Your task to perform on an android device: install app "Paramount+ | Peak Streaming" Image 0: 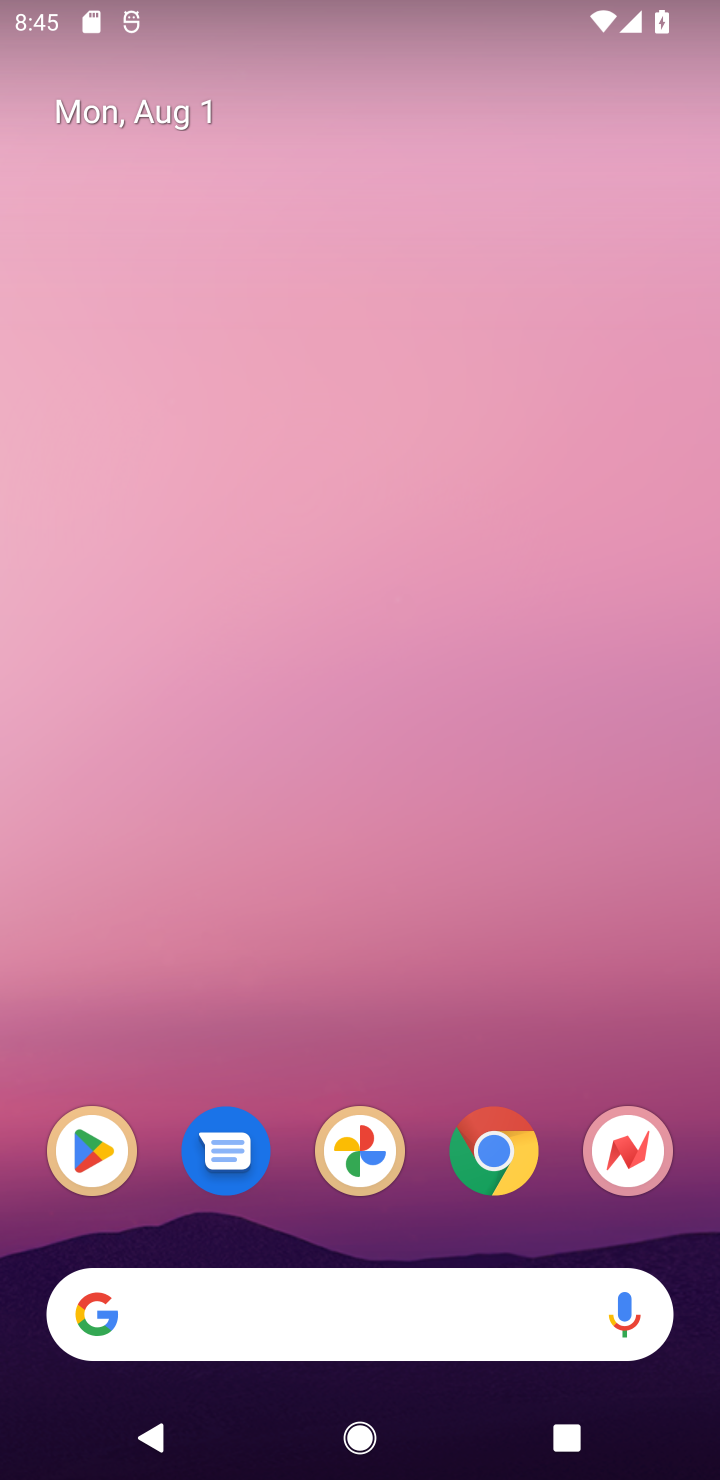
Step 0: click (117, 1149)
Your task to perform on an android device: install app "Paramount+ | Peak Streaming" Image 1: 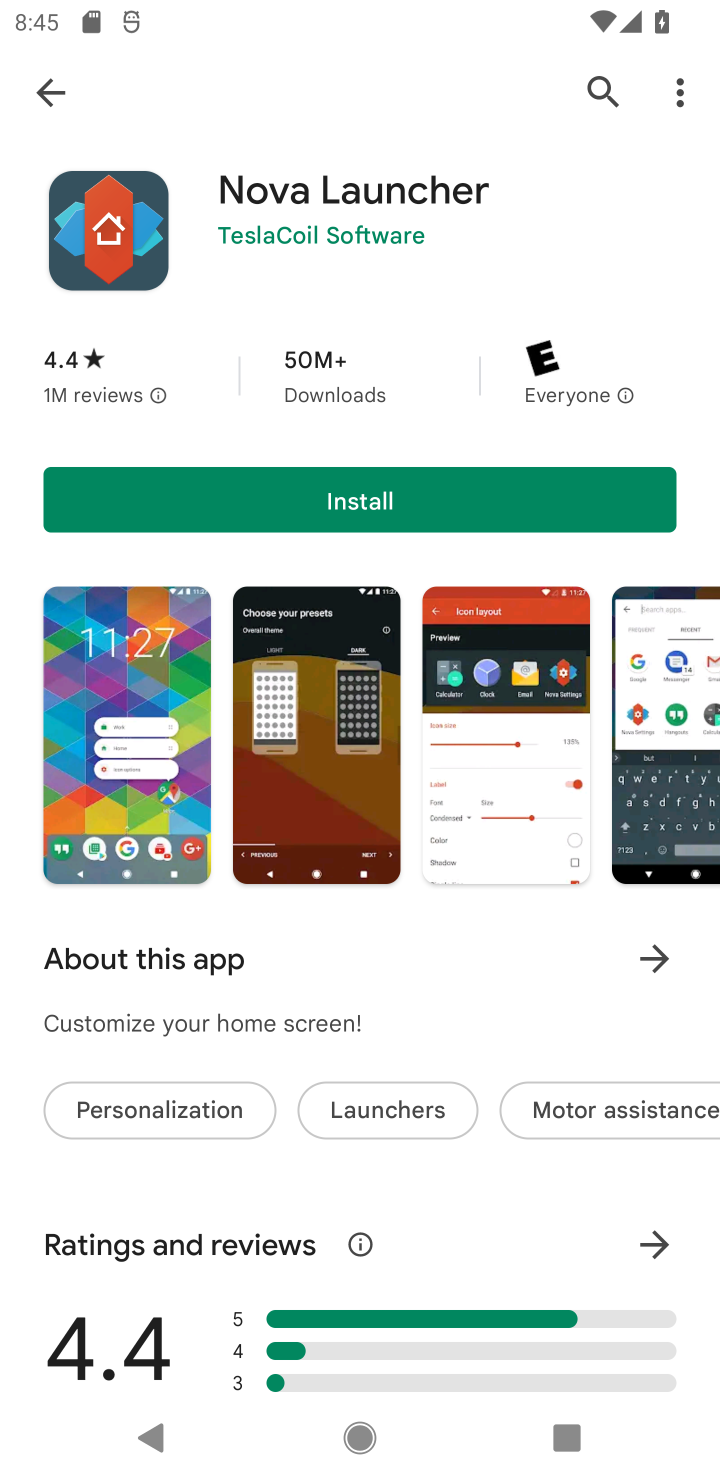
Step 1: click (607, 94)
Your task to perform on an android device: install app "Paramount+ | Peak Streaming" Image 2: 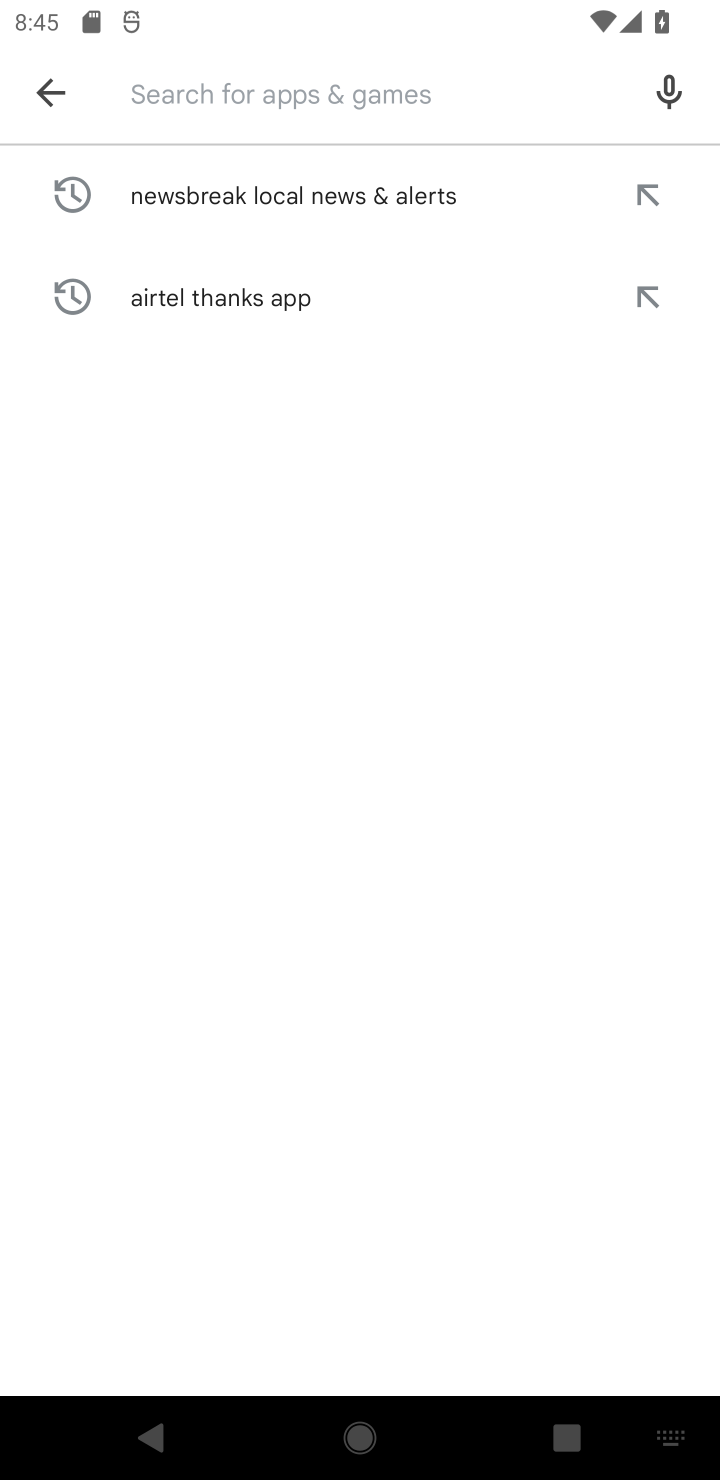
Step 2: type "Paramount+ | Peak Streaming"
Your task to perform on an android device: install app "Paramount+ | Peak Streaming" Image 3: 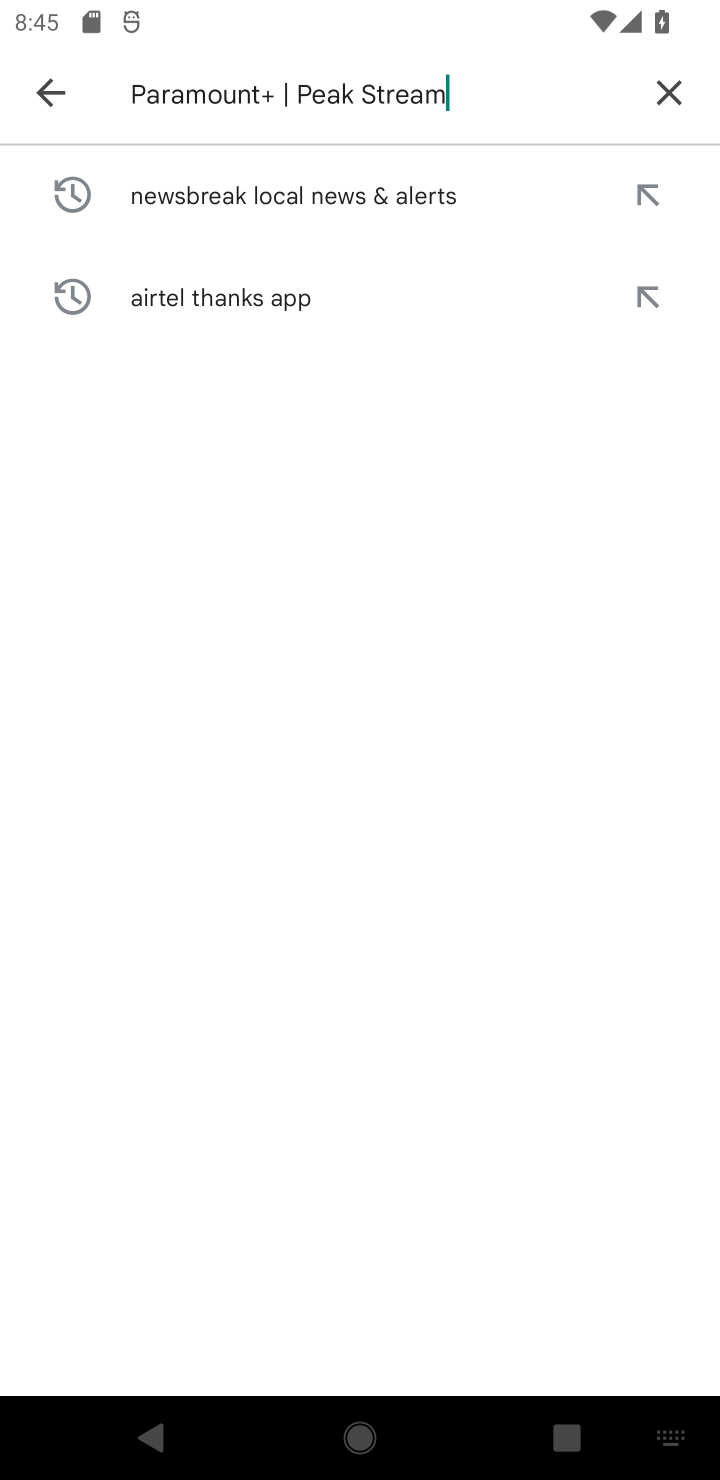
Step 3: type ""
Your task to perform on an android device: install app "Paramount+ | Peak Streaming" Image 4: 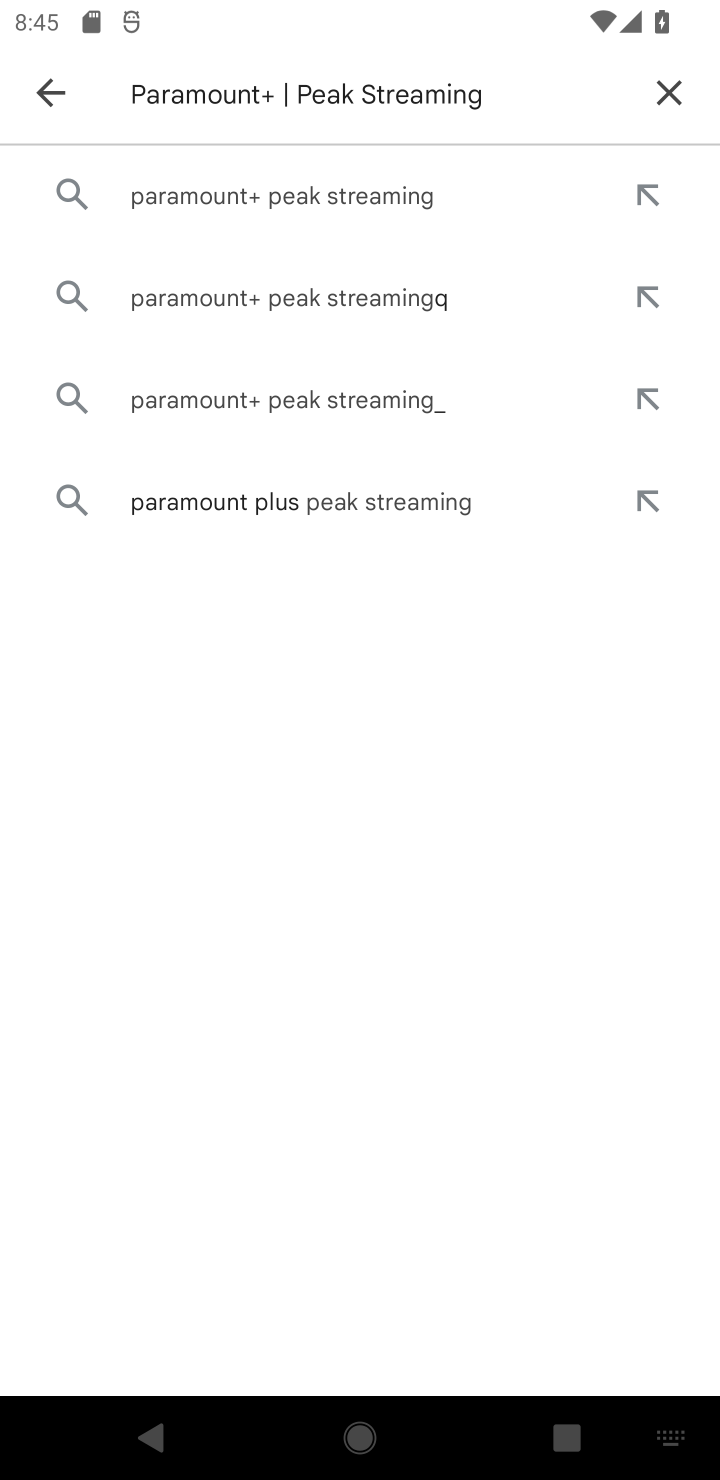
Step 4: click (251, 200)
Your task to perform on an android device: install app "Paramount+ | Peak Streaming" Image 5: 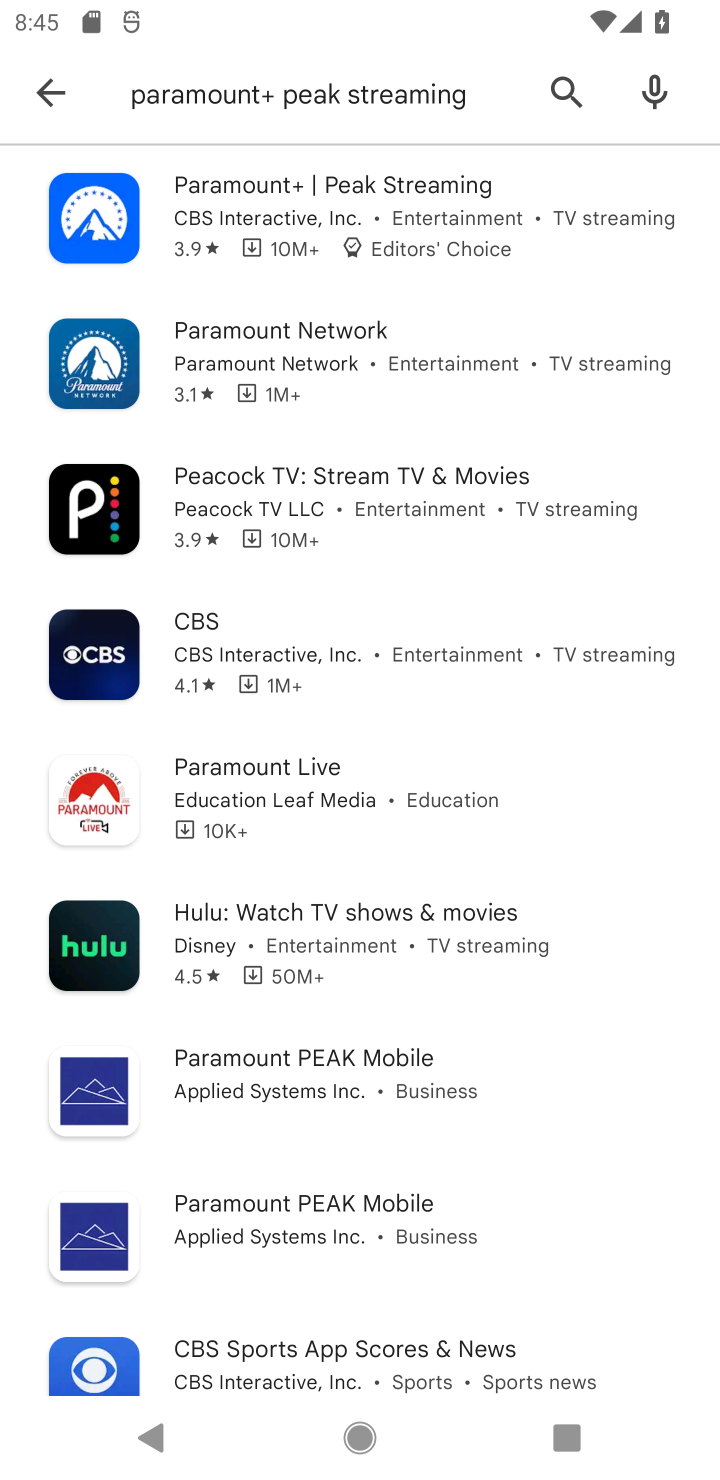
Step 5: click (251, 200)
Your task to perform on an android device: install app "Paramount+ | Peak Streaming" Image 6: 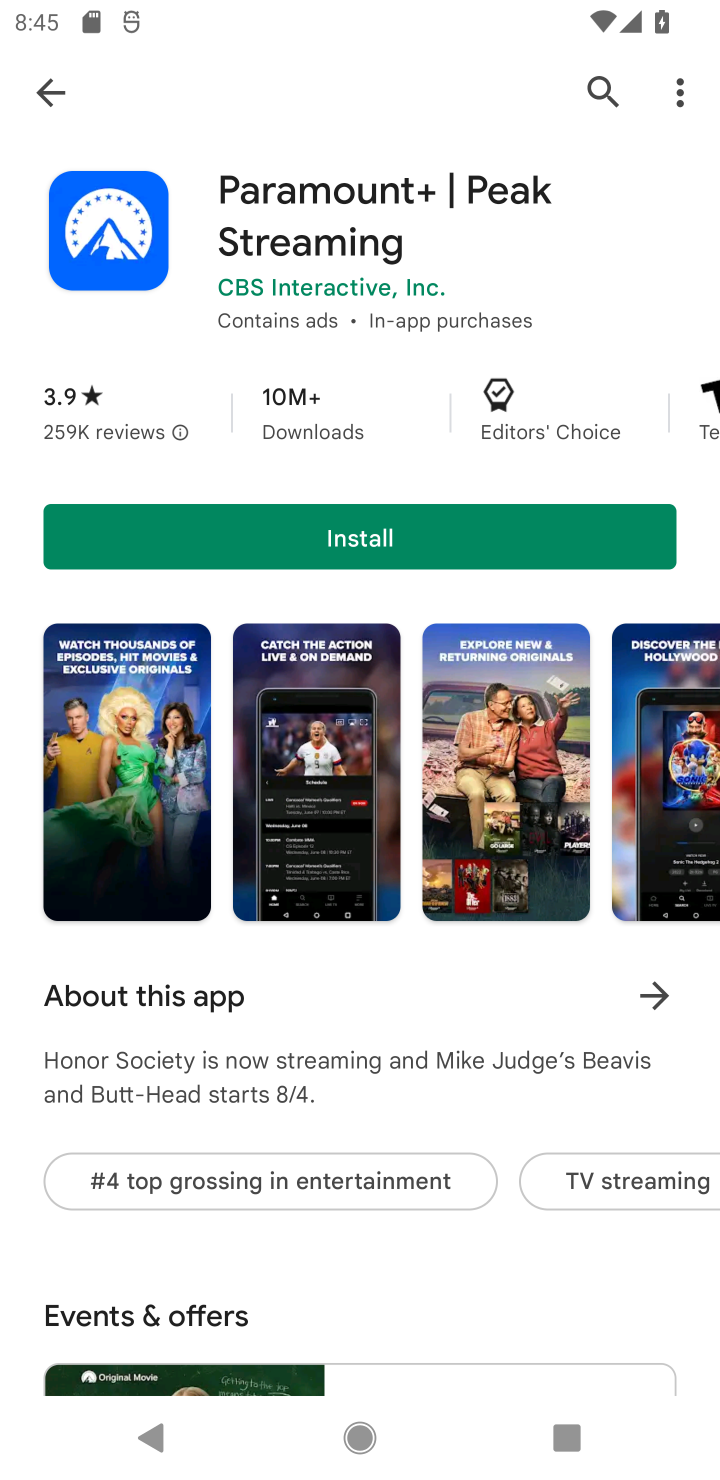
Step 6: click (405, 542)
Your task to perform on an android device: install app "Paramount+ | Peak Streaming" Image 7: 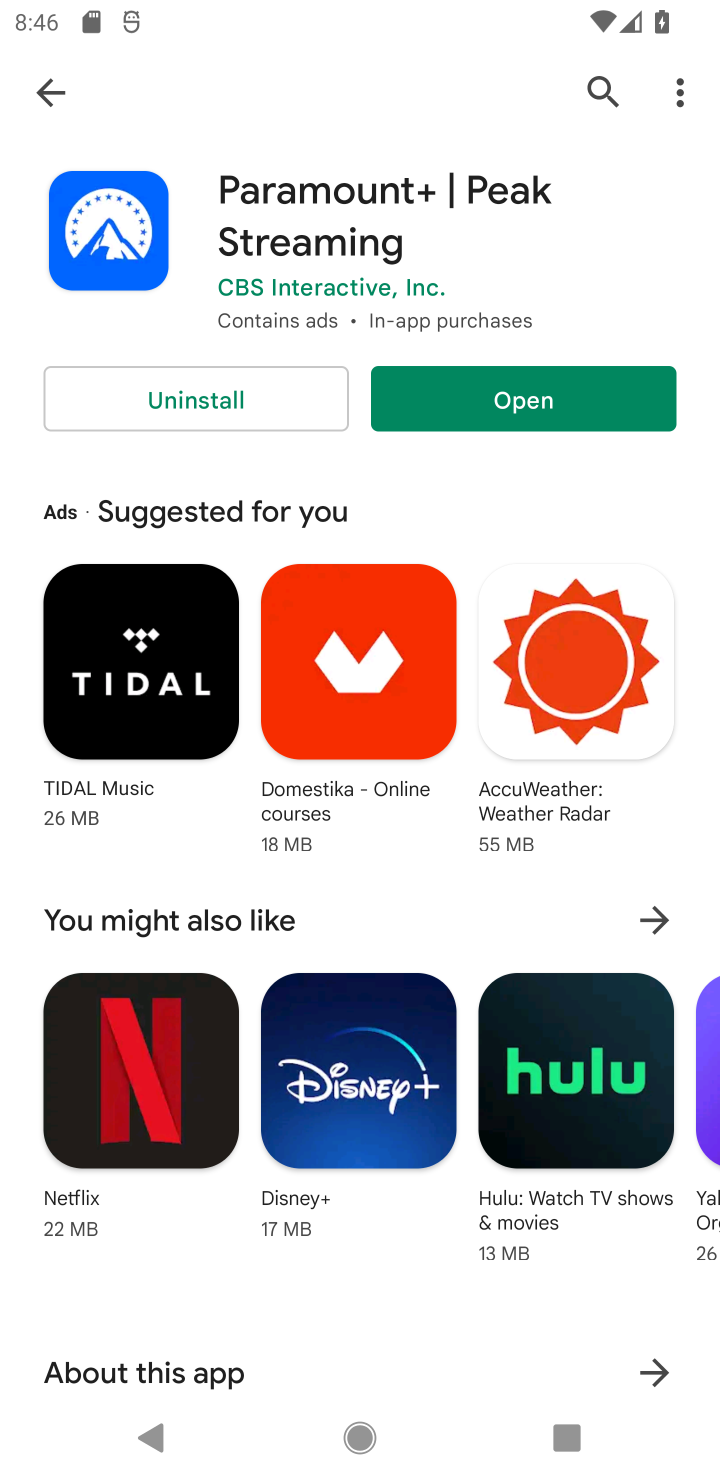
Step 7: task complete